Your task to perform on an android device: install app "Pinterest" Image 0: 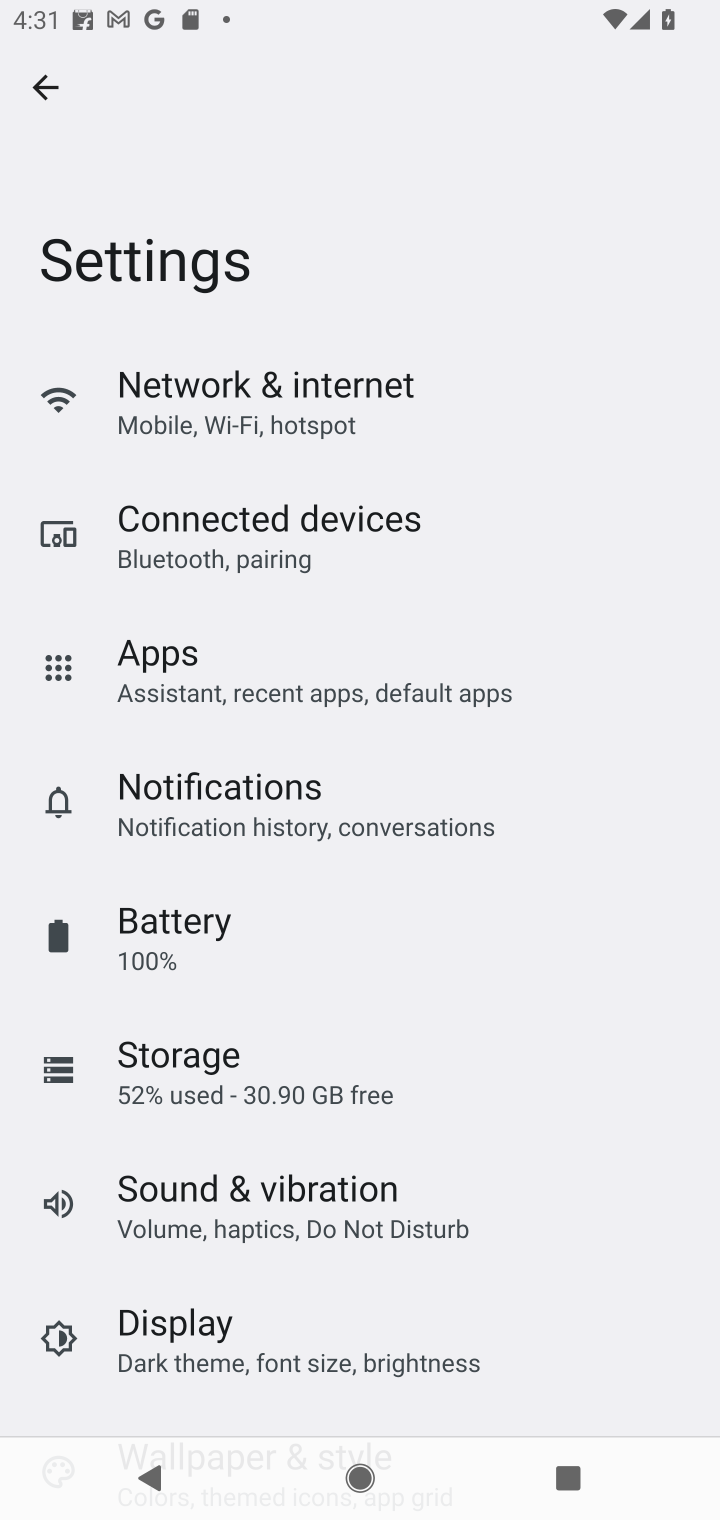
Step 0: press home button
Your task to perform on an android device: install app "Pinterest" Image 1: 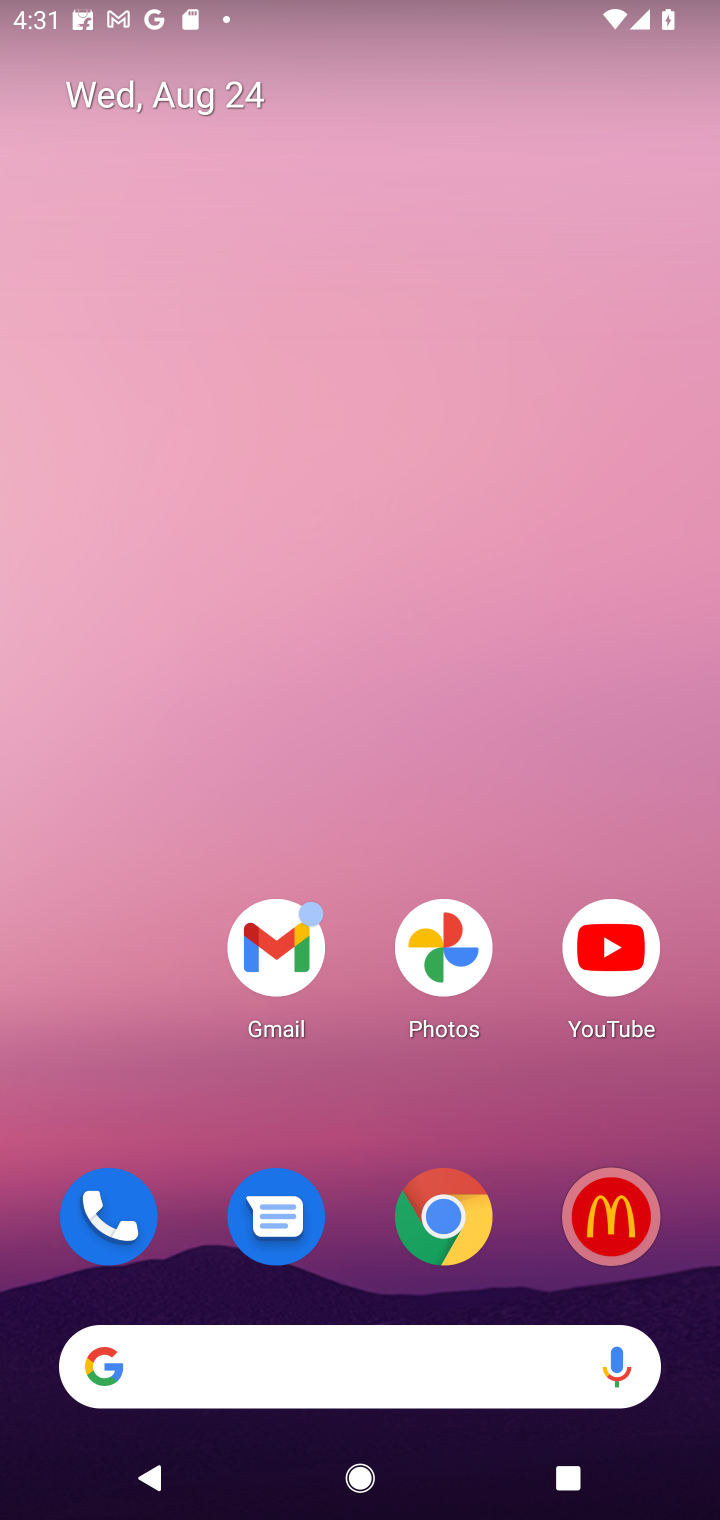
Step 1: drag from (379, 1105) to (376, 380)
Your task to perform on an android device: install app "Pinterest" Image 2: 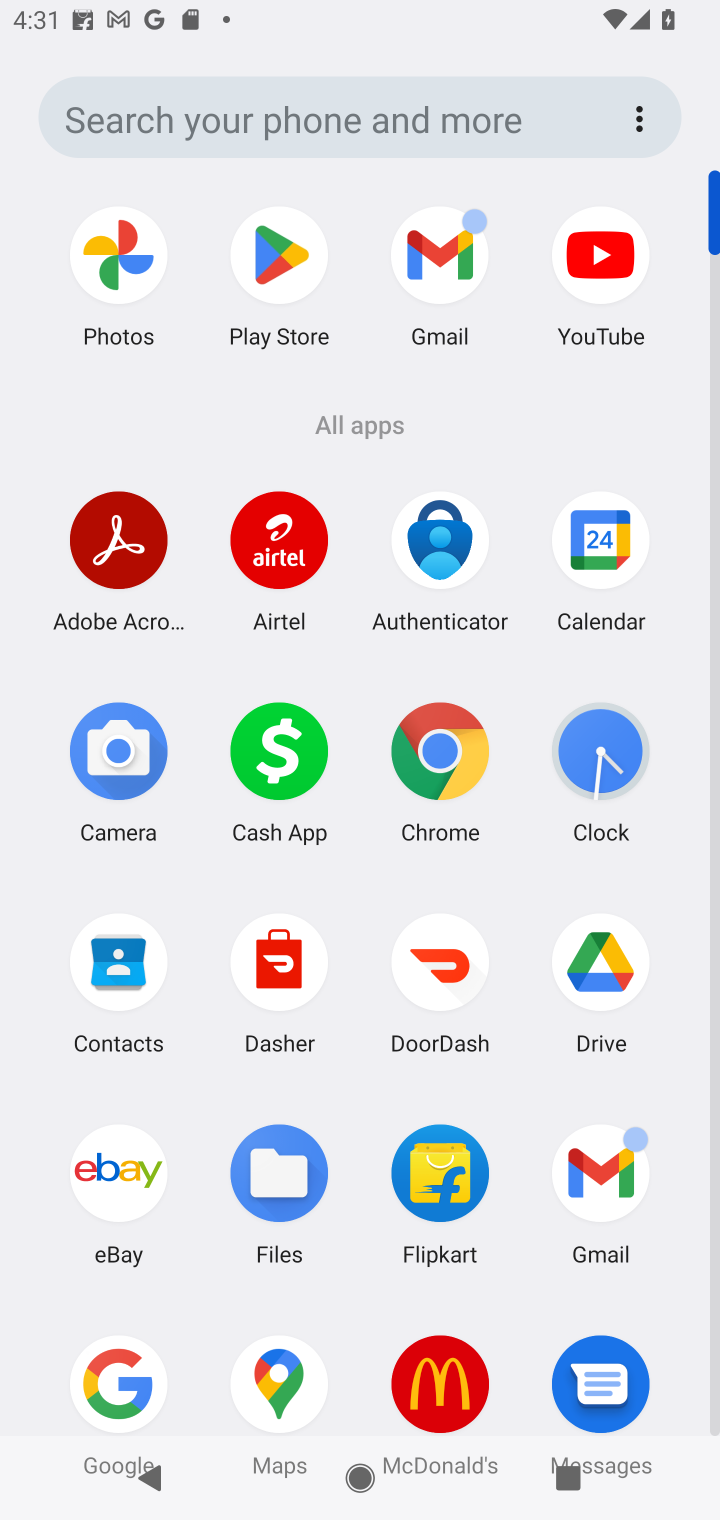
Step 2: click (261, 296)
Your task to perform on an android device: install app "Pinterest" Image 3: 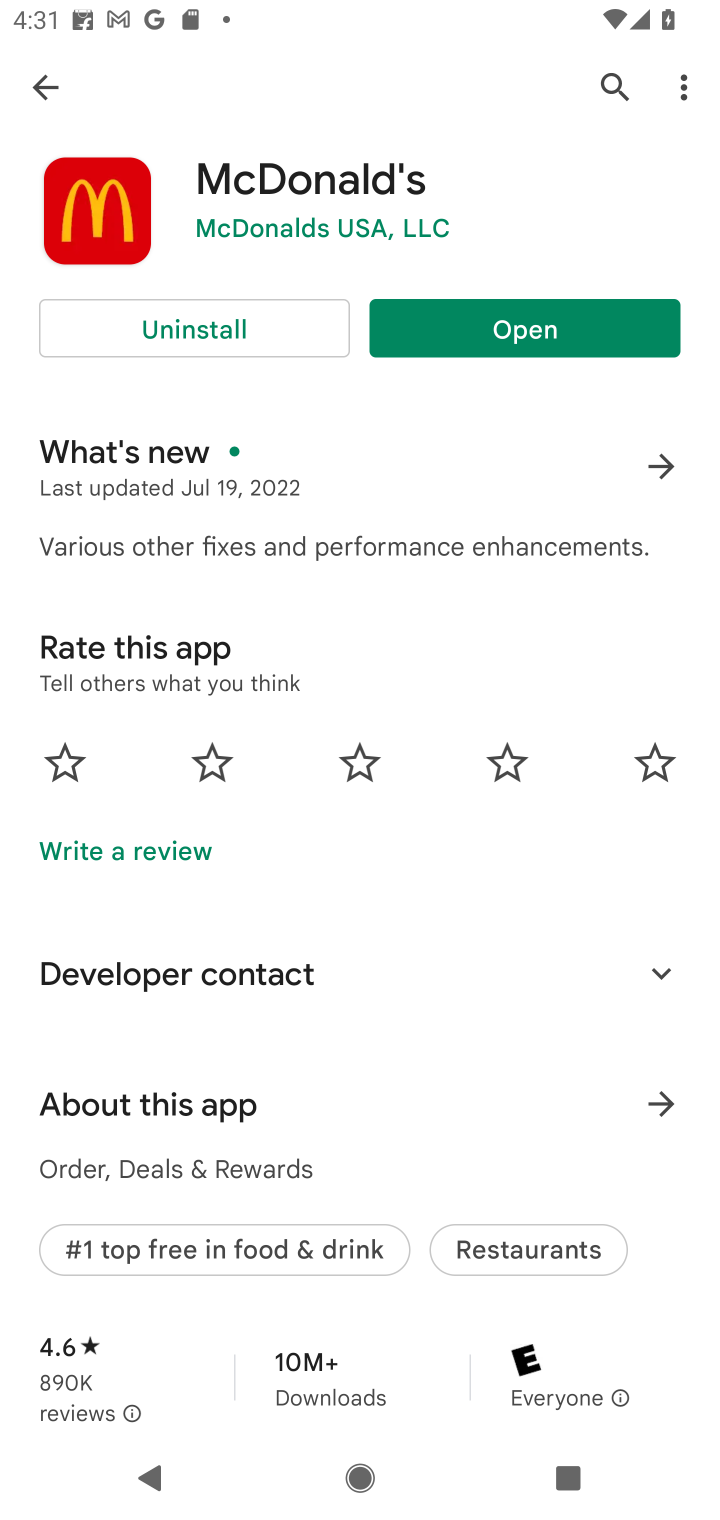
Step 3: click (593, 88)
Your task to perform on an android device: install app "Pinterest" Image 4: 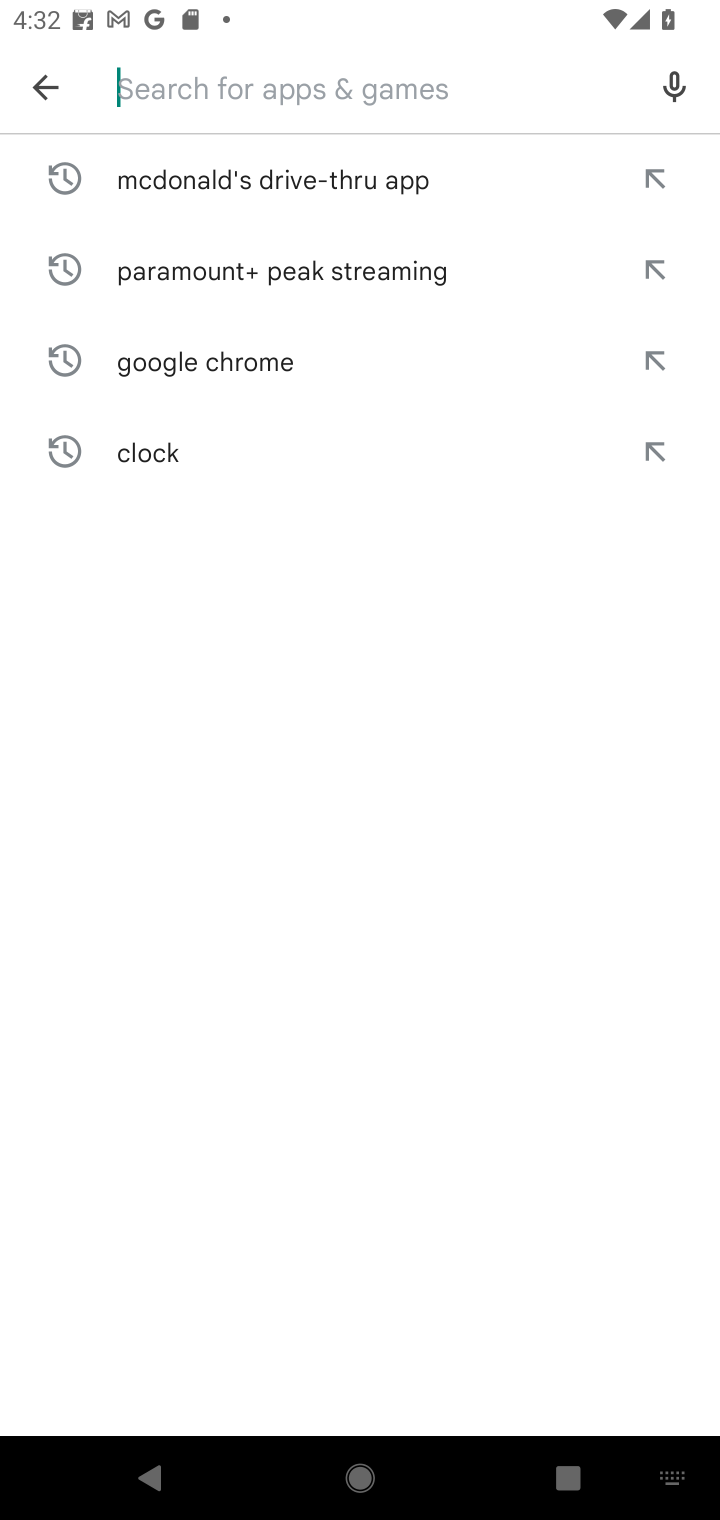
Step 4: type "Pinterest"
Your task to perform on an android device: install app "Pinterest" Image 5: 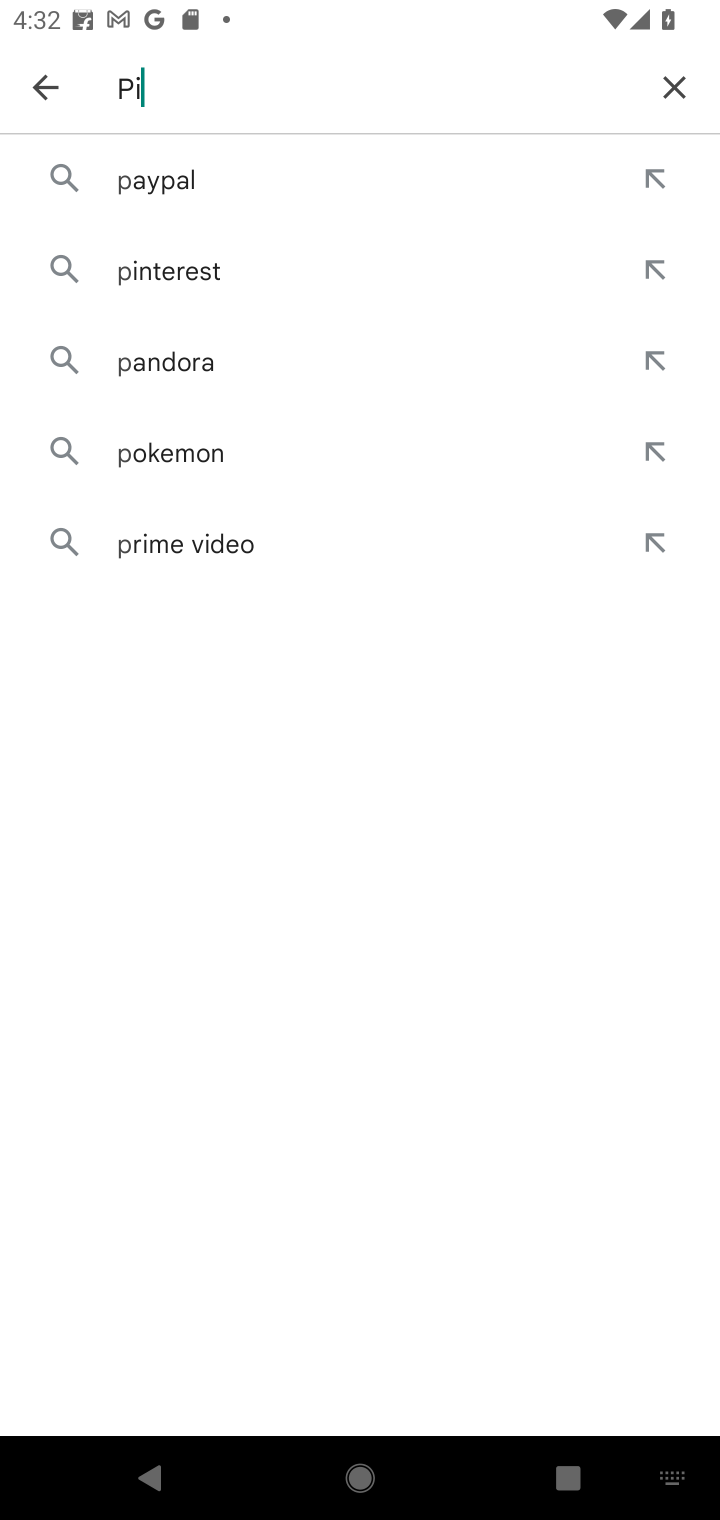
Step 5: type ""
Your task to perform on an android device: install app "Pinterest" Image 6: 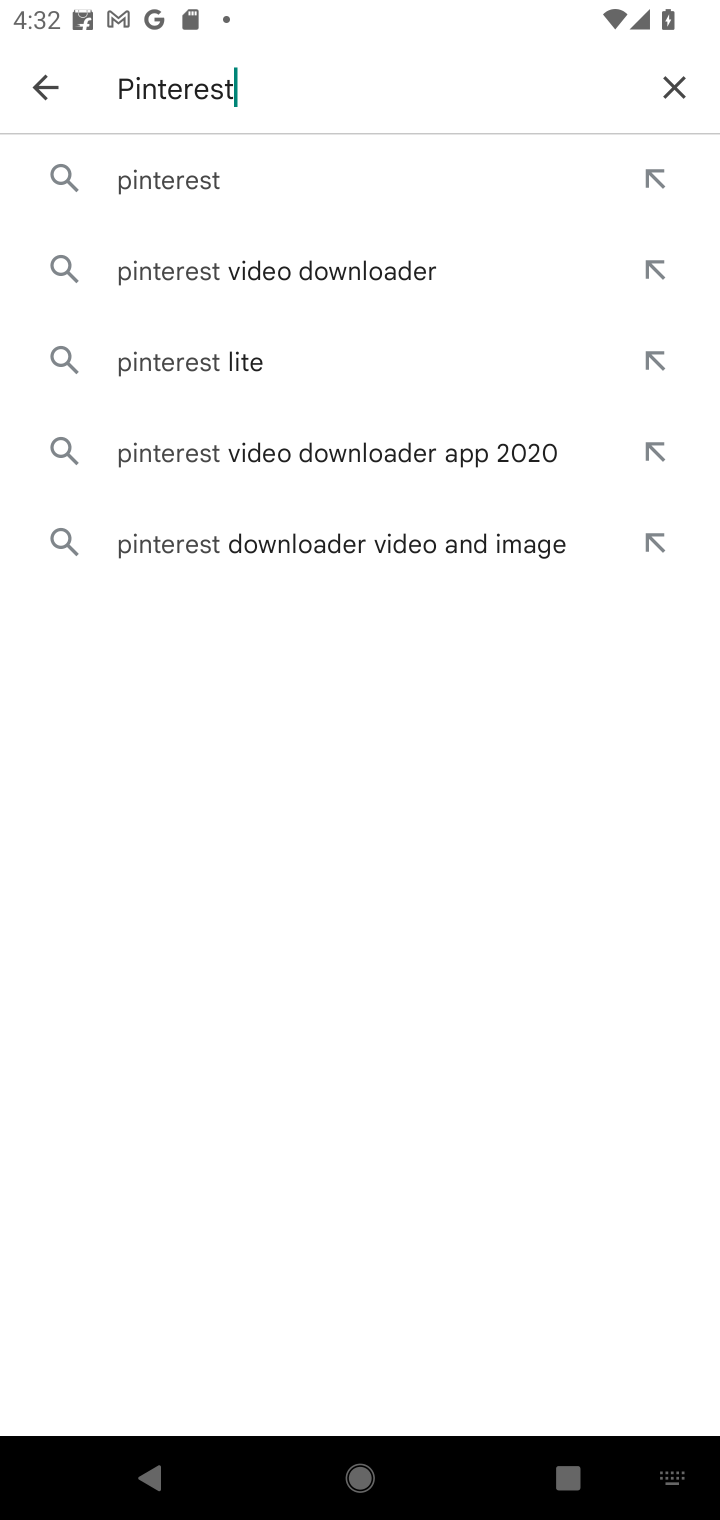
Step 6: click (171, 188)
Your task to perform on an android device: install app "Pinterest" Image 7: 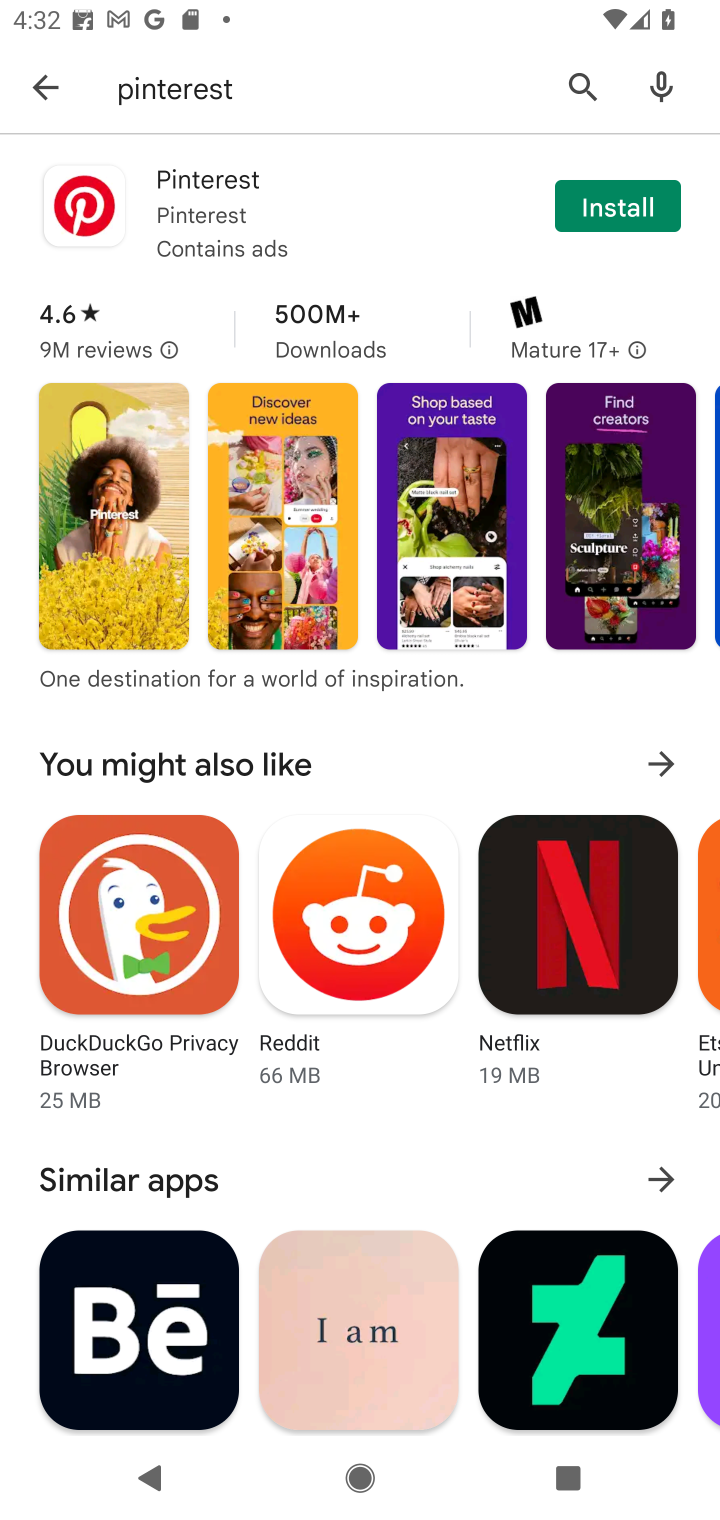
Step 7: click (617, 216)
Your task to perform on an android device: install app "Pinterest" Image 8: 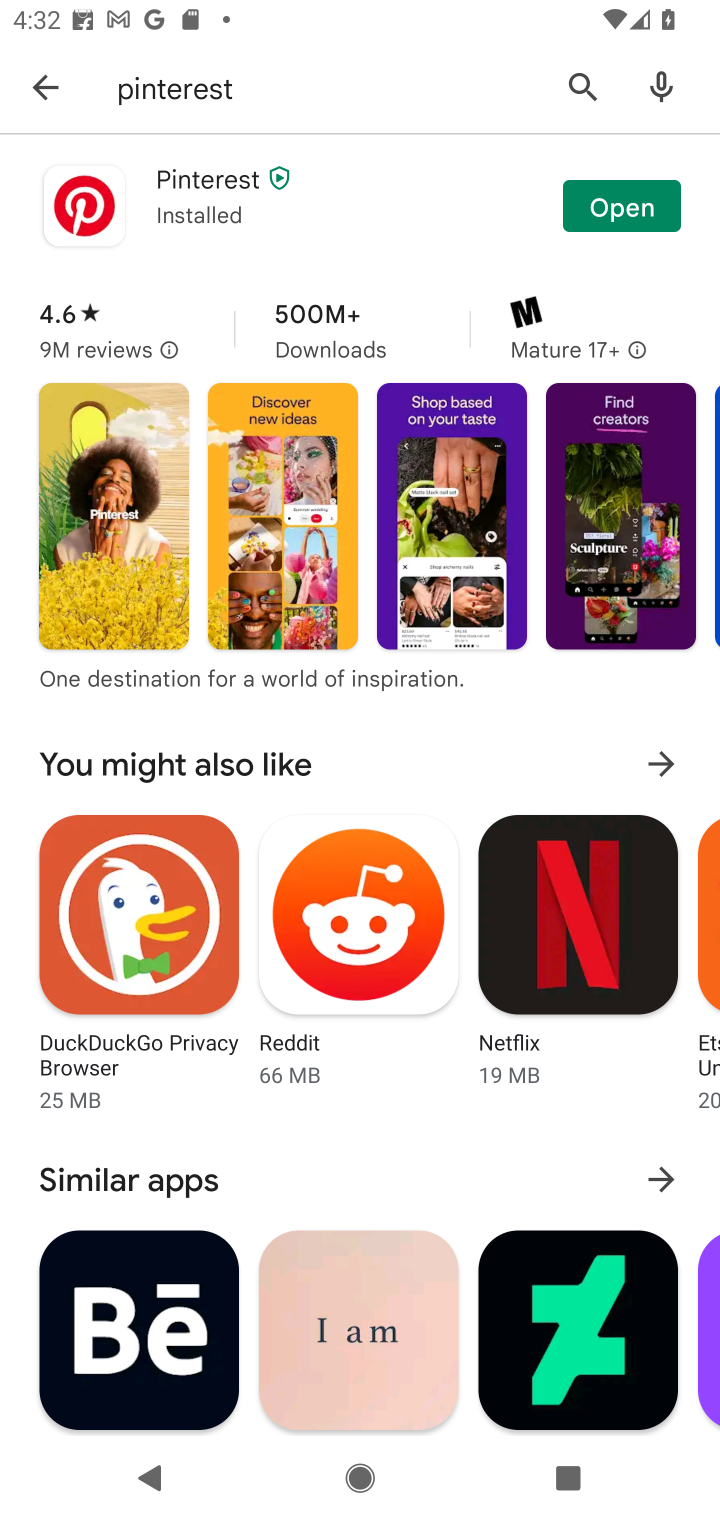
Step 8: task complete